Your task to perform on an android device: Open network settings Image 0: 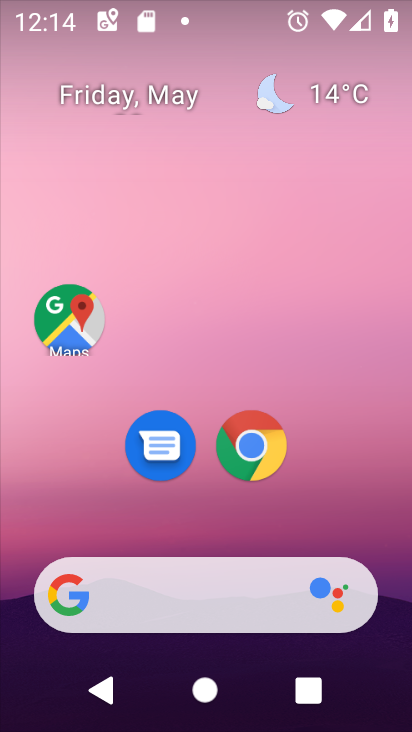
Step 0: drag from (195, 520) to (196, 165)
Your task to perform on an android device: Open network settings Image 1: 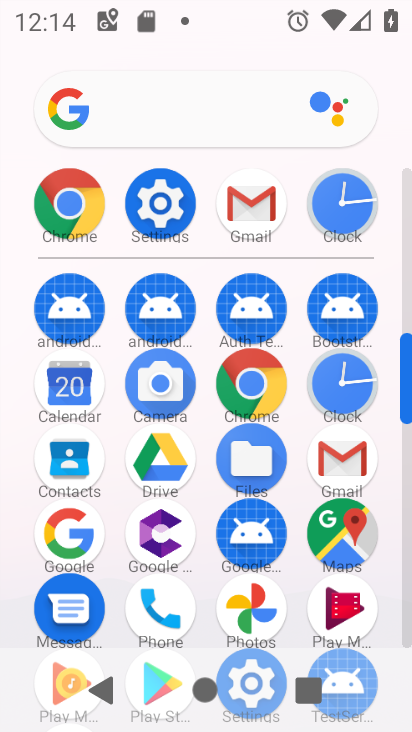
Step 1: click (170, 188)
Your task to perform on an android device: Open network settings Image 2: 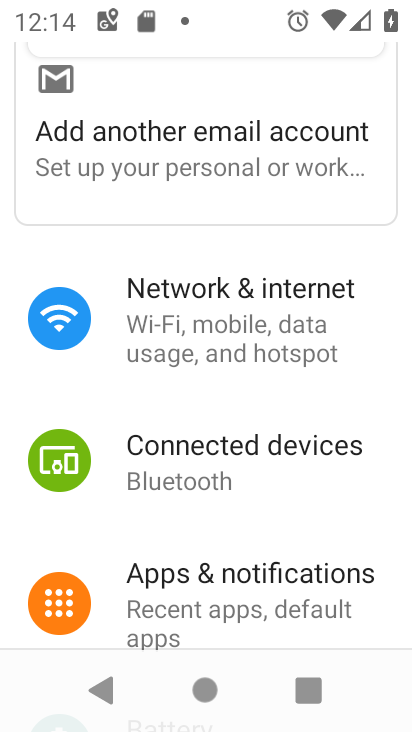
Step 2: click (237, 295)
Your task to perform on an android device: Open network settings Image 3: 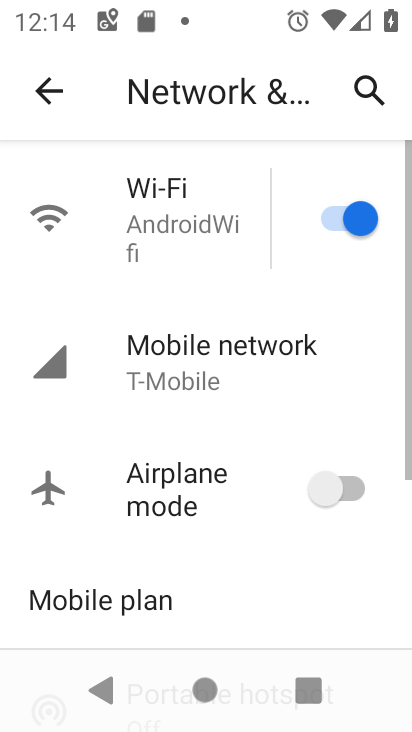
Step 3: task complete